Your task to perform on an android device: Open privacy settings Image 0: 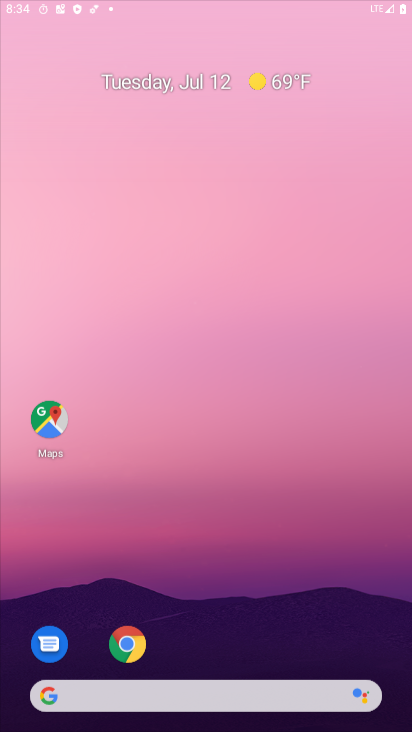
Step 0: press home button
Your task to perform on an android device: Open privacy settings Image 1: 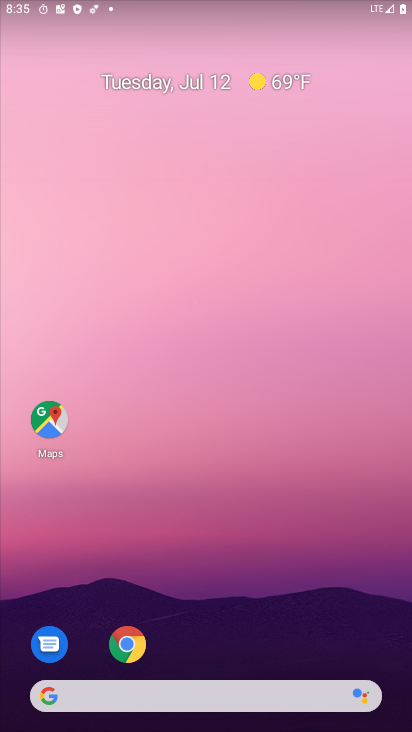
Step 1: drag from (195, 498) to (240, 15)
Your task to perform on an android device: Open privacy settings Image 2: 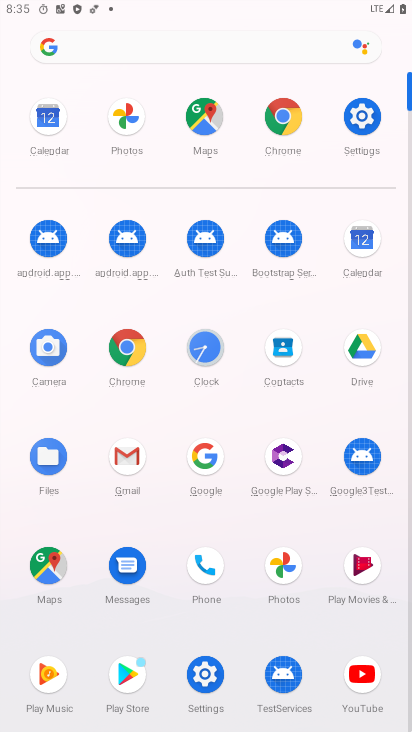
Step 2: click (361, 109)
Your task to perform on an android device: Open privacy settings Image 3: 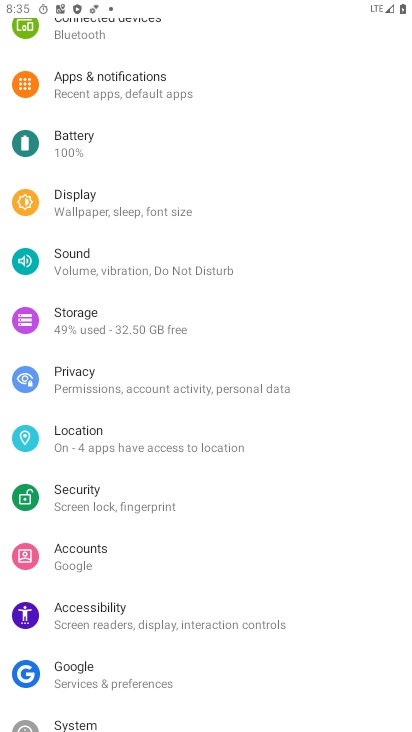
Step 3: click (116, 373)
Your task to perform on an android device: Open privacy settings Image 4: 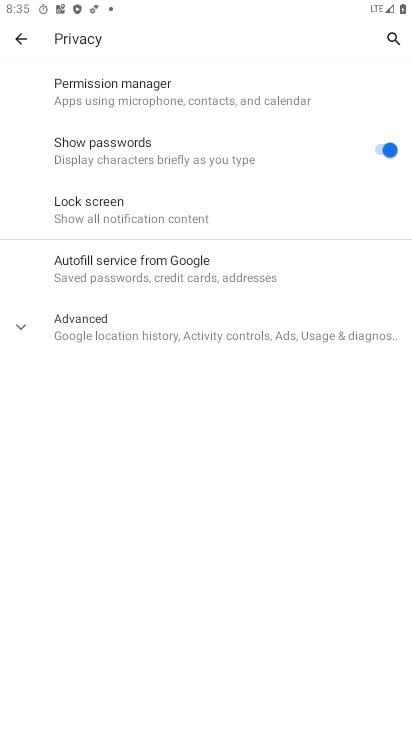
Step 4: click (23, 327)
Your task to perform on an android device: Open privacy settings Image 5: 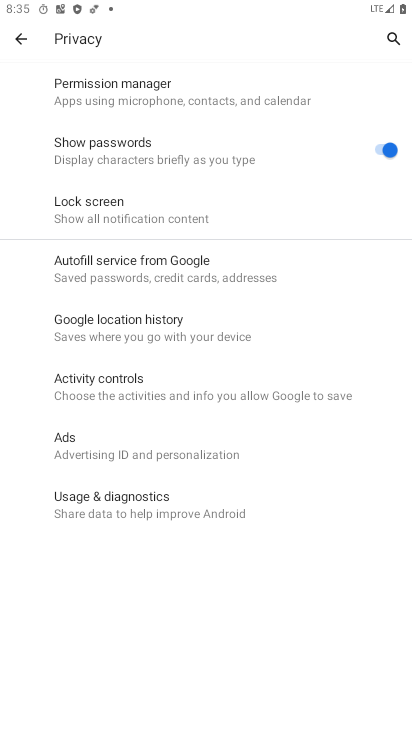
Step 5: task complete